Your task to perform on an android device: empty trash in google photos Image 0: 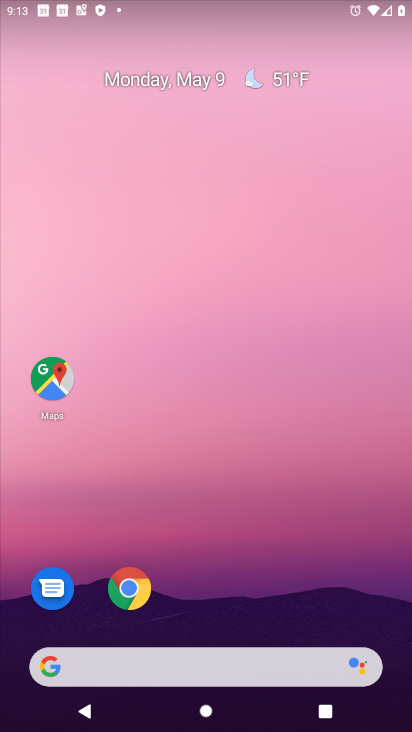
Step 0: drag from (253, 586) to (200, 77)
Your task to perform on an android device: empty trash in google photos Image 1: 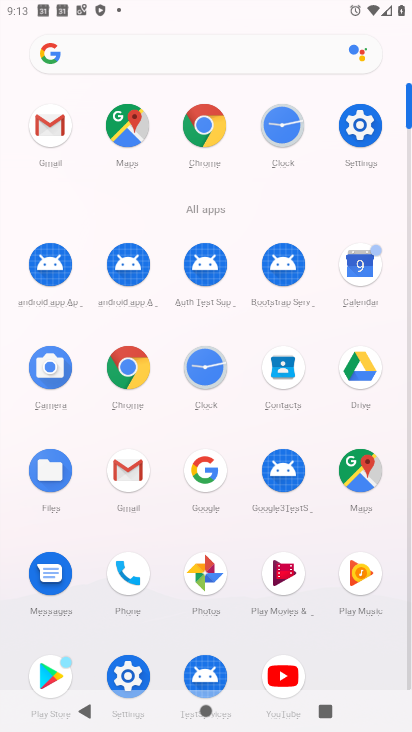
Step 1: click (202, 577)
Your task to perform on an android device: empty trash in google photos Image 2: 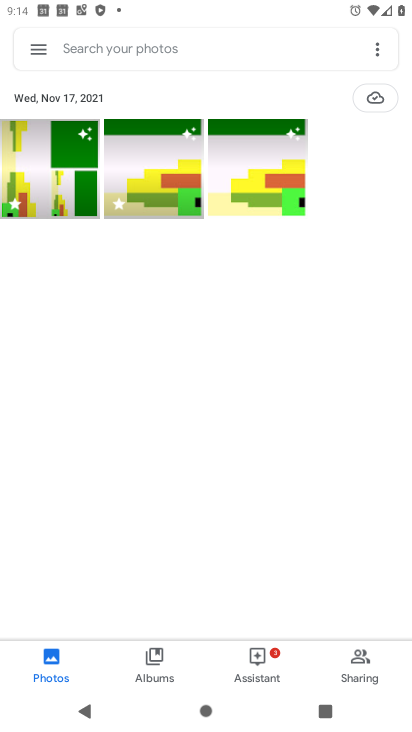
Step 2: click (34, 47)
Your task to perform on an android device: empty trash in google photos Image 3: 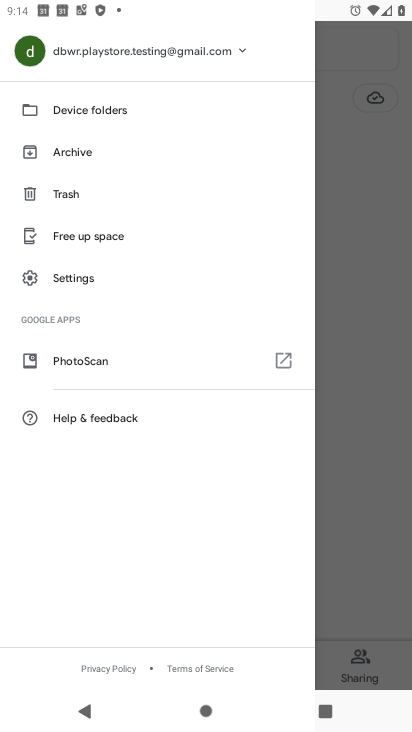
Step 3: click (59, 190)
Your task to perform on an android device: empty trash in google photos Image 4: 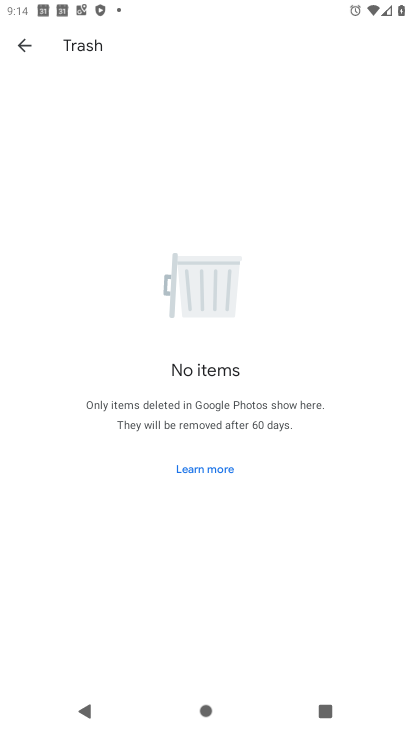
Step 4: task complete